Your task to perform on an android device: change alarm snooze length Image 0: 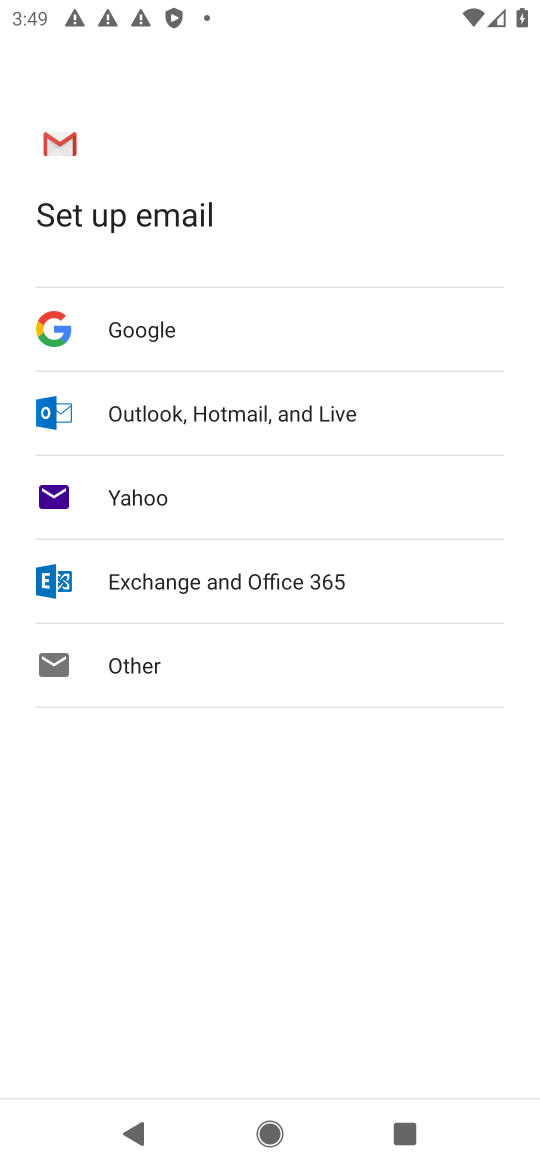
Step 0: press home button
Your task to perform on an android device: change alarm snooze length Image 1: 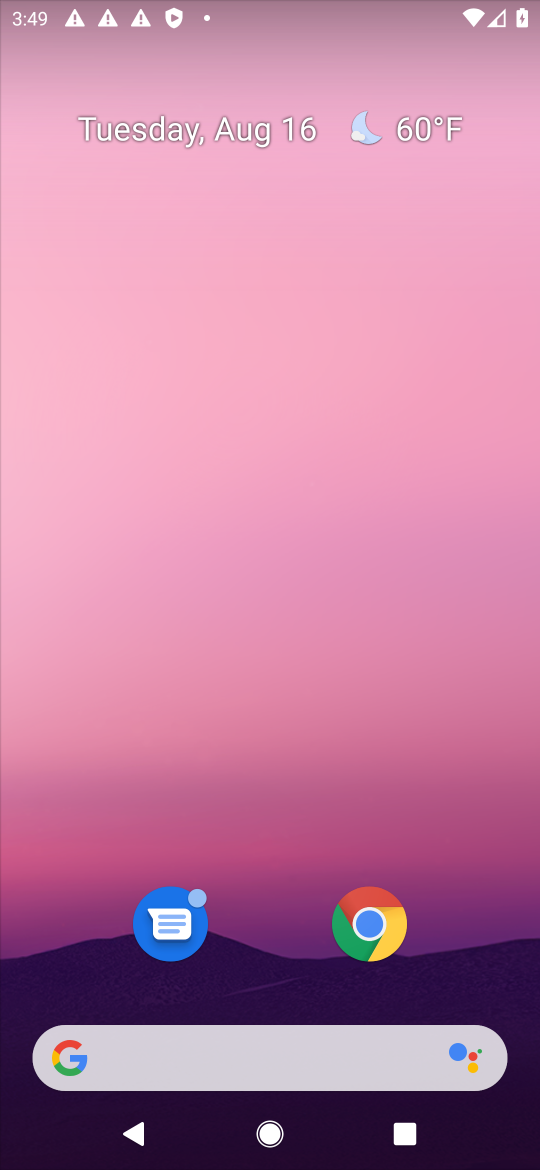
Step 1: drag from (277, 1004) to (335, 26)
Your task to perform on an android device: change alarm snooze length Image 2: 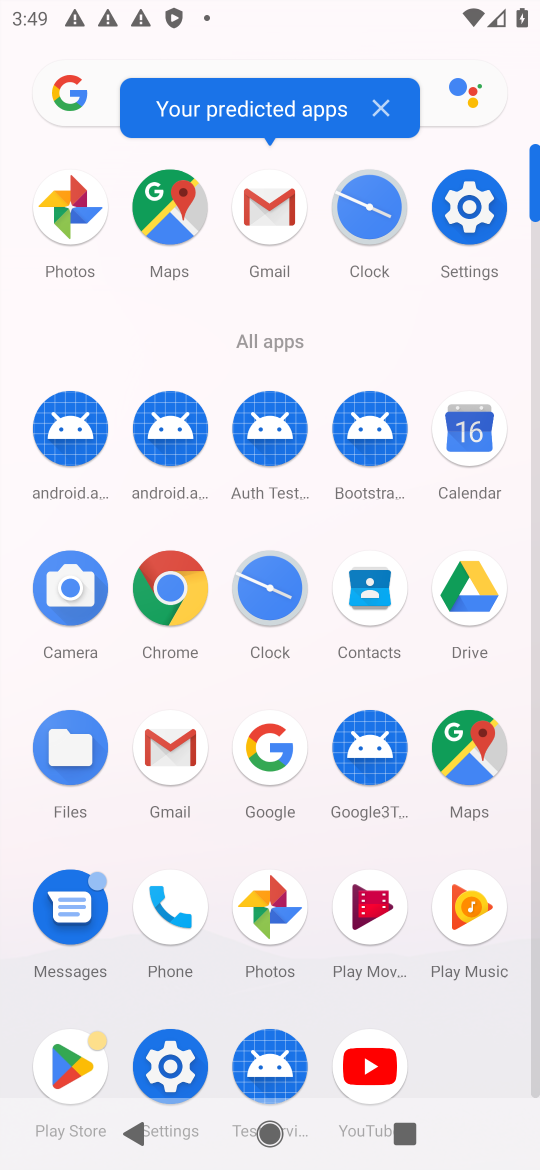
Step 2: click (262, 581)
Your task to perform on an android device: change alarm snooze length Image 3: 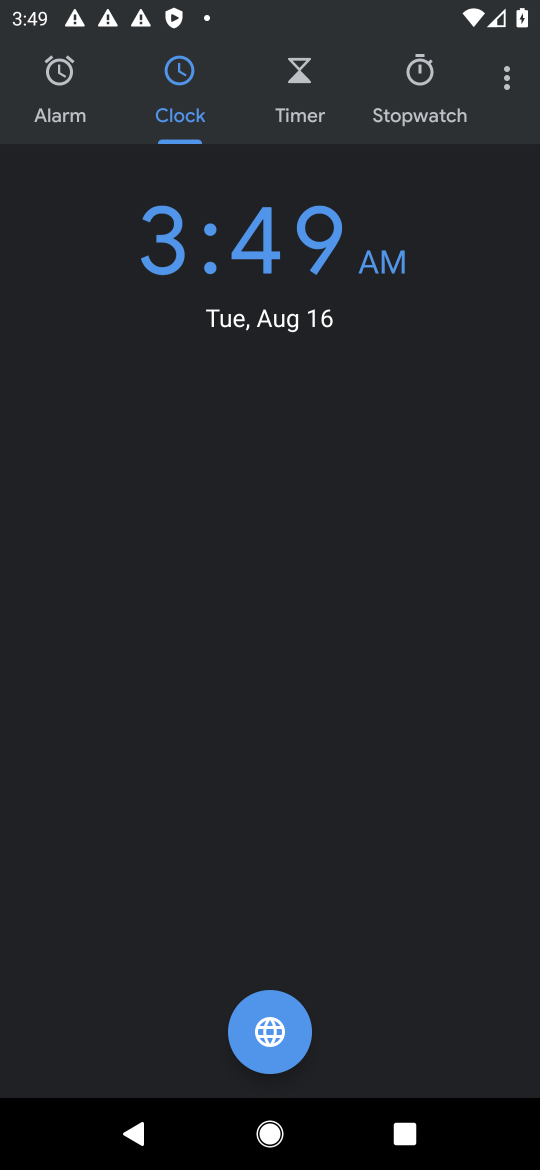
Step 3: click (519, 76)
Your task to perform on an android device: change alarm snooze length Image 4: 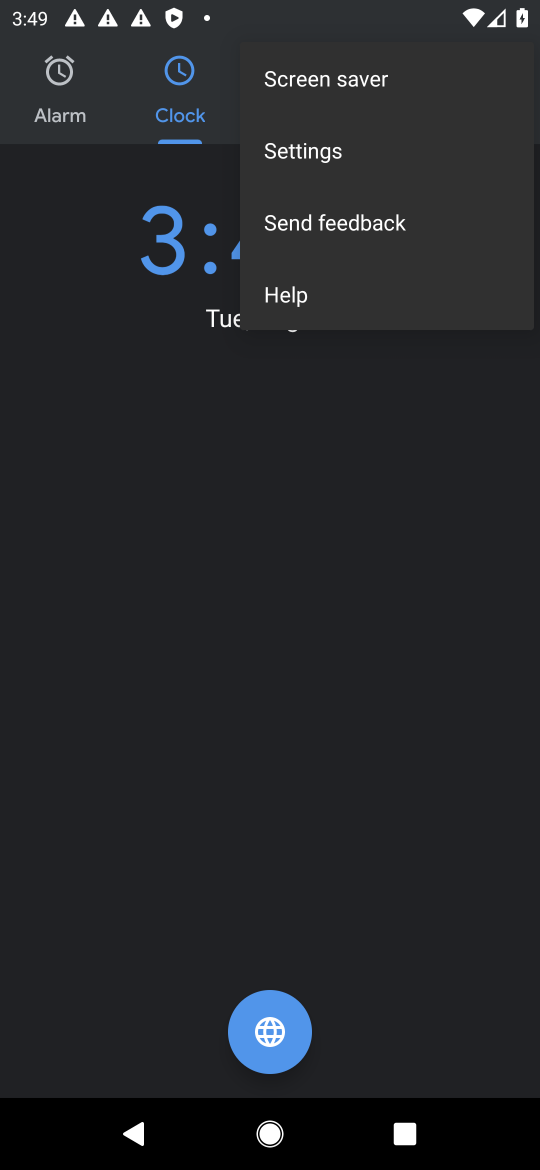
Step 4: click (410, 179)
Your task to perform on an android device: change alarm snooze length Image 5: 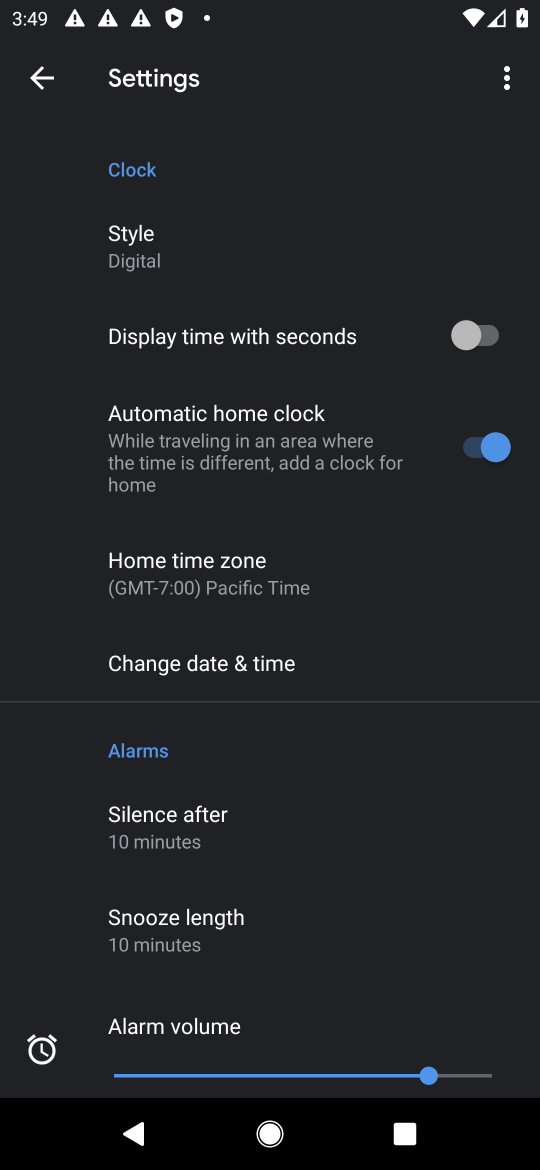
Step 5: click (218, 935)
Your task to perform on an android device: change alarm snooze length Image 6: 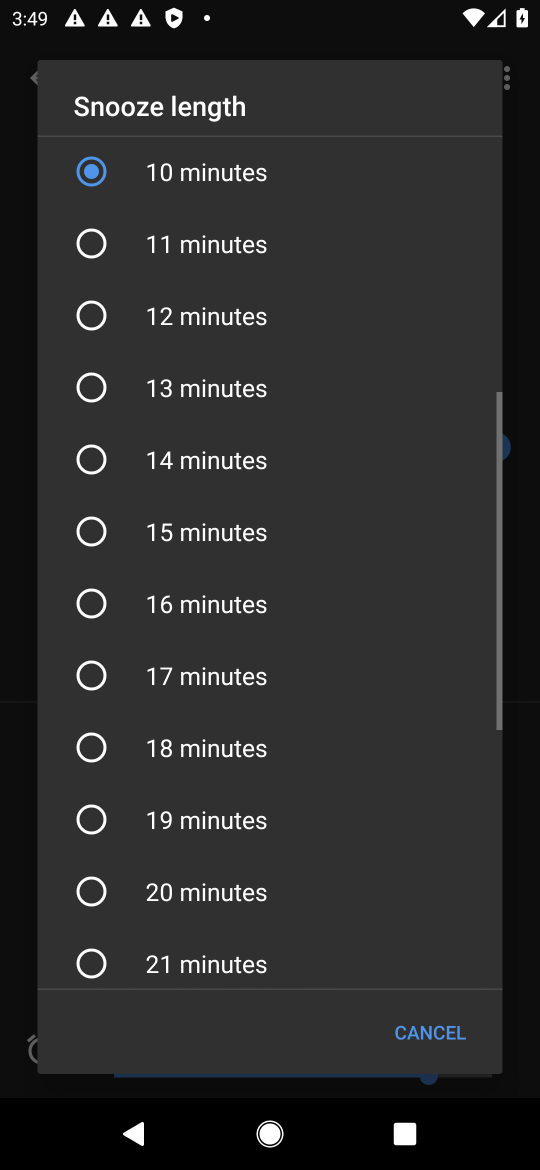
Step 6: click (218, 935)
Your task to perform on an android device: change alarm snooze length Image 7: 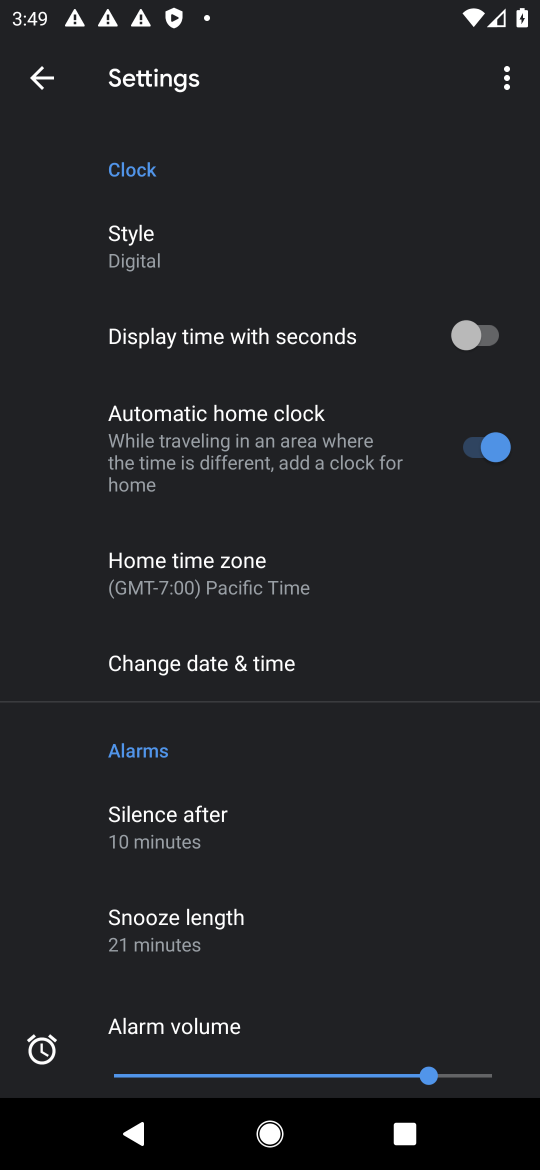
Step 7: task complete